Your task to perform on an android device: What's the weather going to be this weekend? Image 0: 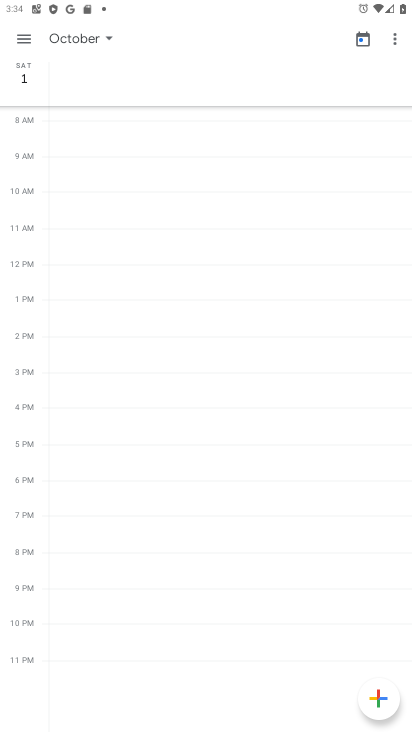
Step 0: press home button
Your task to perform on an android device: What's the weather going to be this weekend? Image 1: 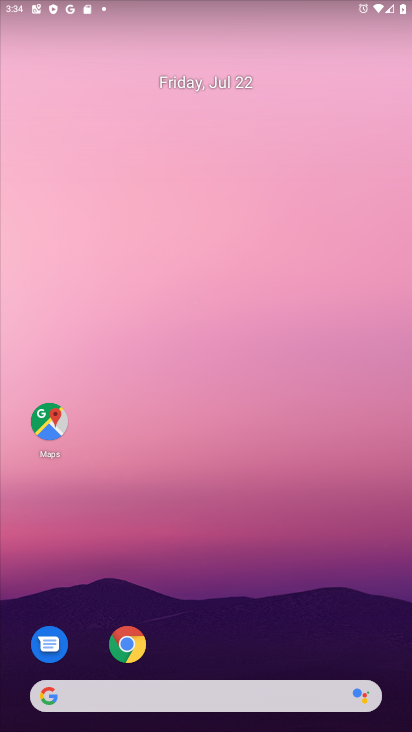
Step 1: drag from (174, 721) to (204, 498)
Your task to perform on an android device: What's the weather going to be this weekend? Image 2: 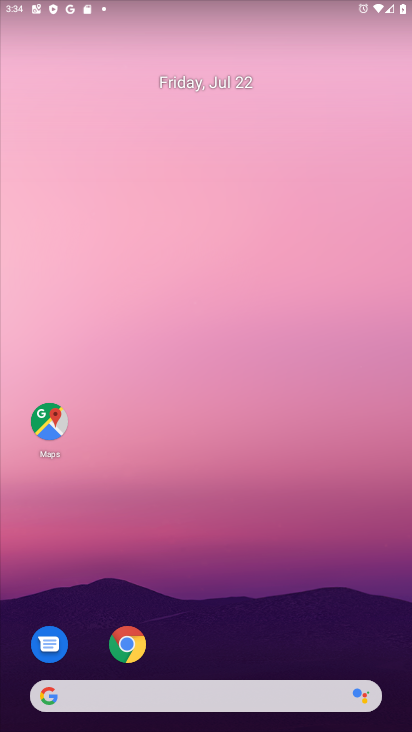
Step 2: click (173, 708)
Your task to perform on an android device: What's the weather going to be this weekend? Image 3: 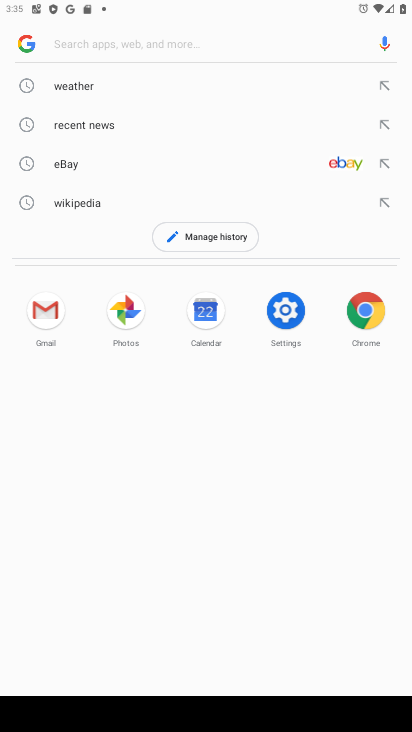
Step 3: type "What's the weather going to be this weekend?"
Your task to perform on an android device: What's the weather going to be this weekend? Image 4: 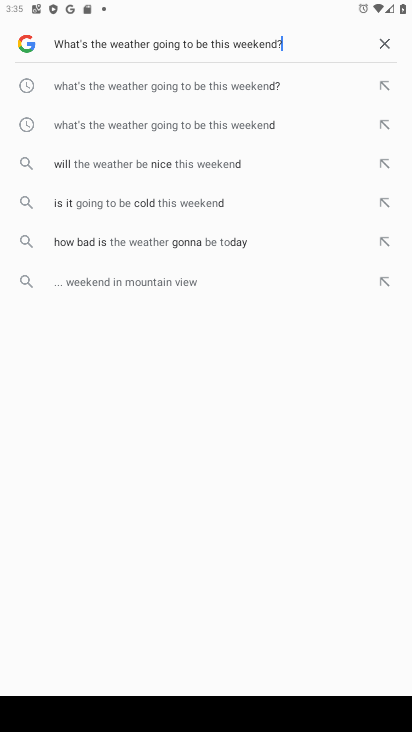
Step 4: press enter
Your task to perform on an android device: What's the weather going to be this weekend? Image 5: 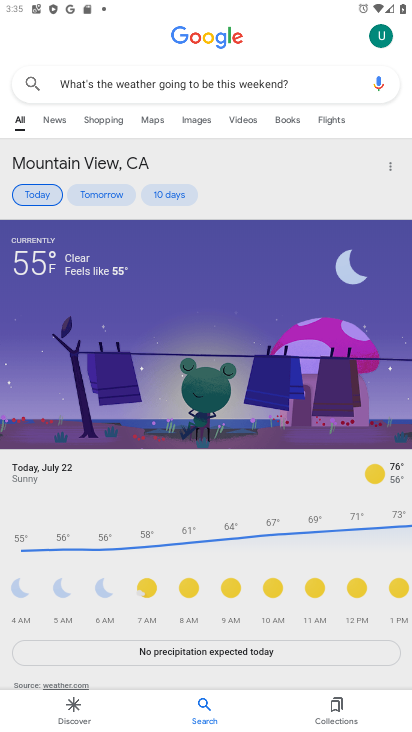
Step 5: task complete